Your task to perform on an android device: open the mobile data screen to see how much data has been used Image 0: 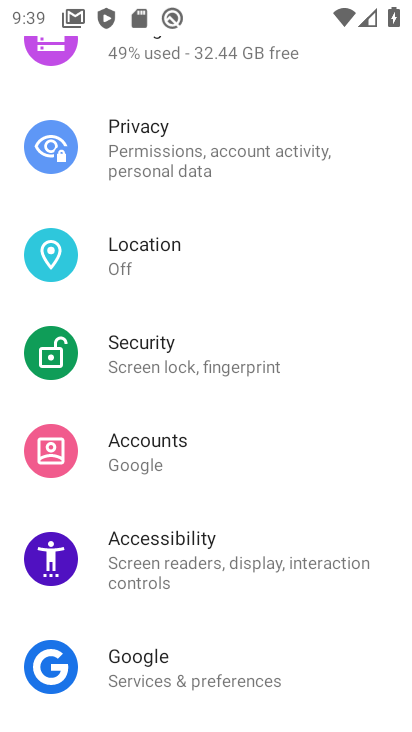
Step 0: drag from (304, 247) to (259, 718)
Your task to perform on an android device: open the mobile data screen to see how much data has been used Image 1: 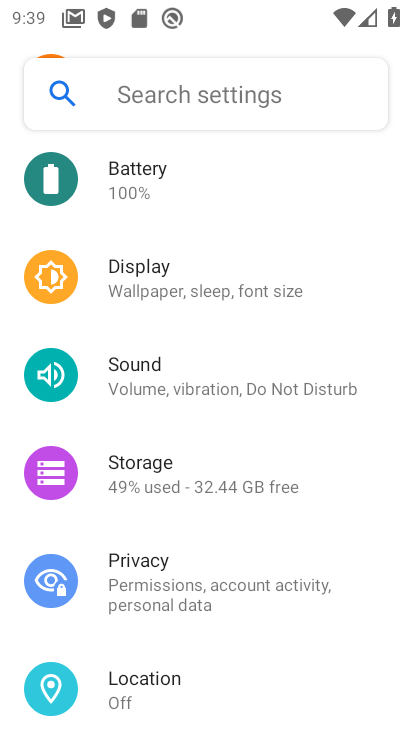
Step 1: drag from (307, 340) to (296, 683)
Your task to perform on an android device: open the mobile data screen to see how much data has been used Image 2: 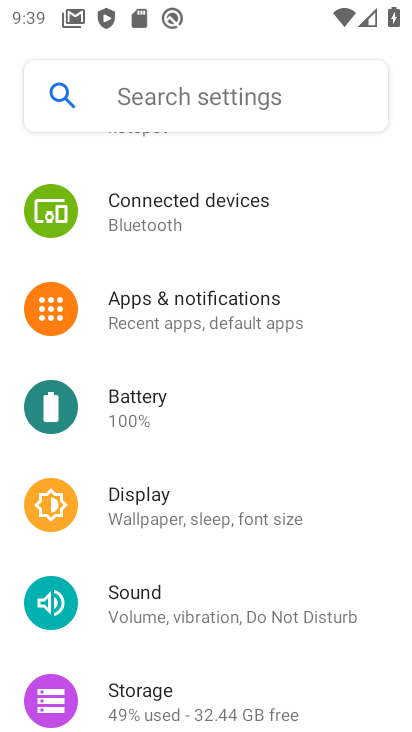
Step 2: drag from (299, 253) to (282, 635)
Your task to perform on an android device: open the mobile data screen to see how much data has been used Image 3: 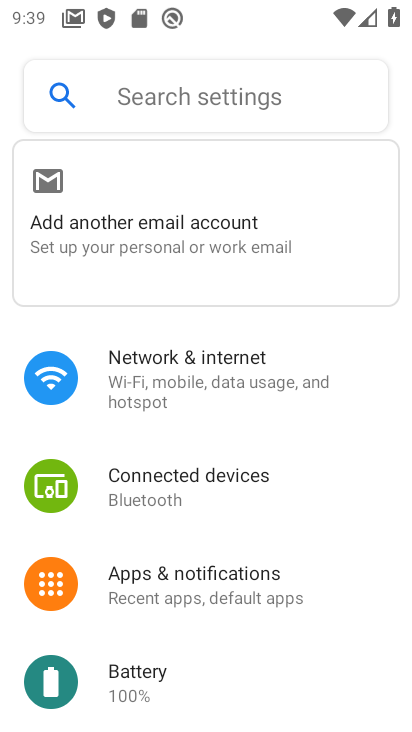
Step 3: click (222, 380)
Your task to perform on an android device: open the mobile data screen to see how much data has been used Image 4: 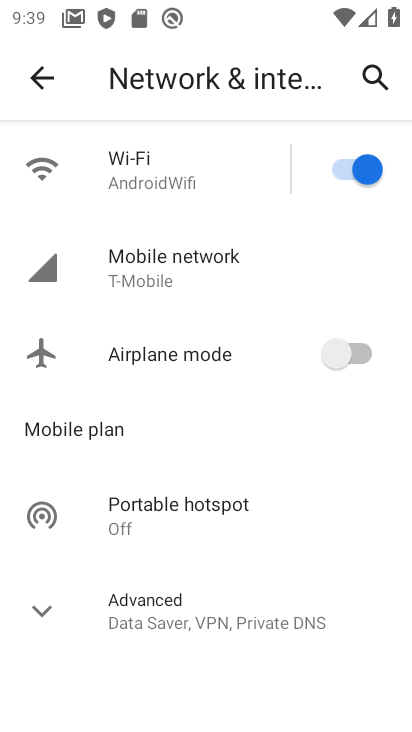
Step 4: click (152, 263)
Your task to perform on an android device: open the mobile data screen to see how much data has been used Image 5: 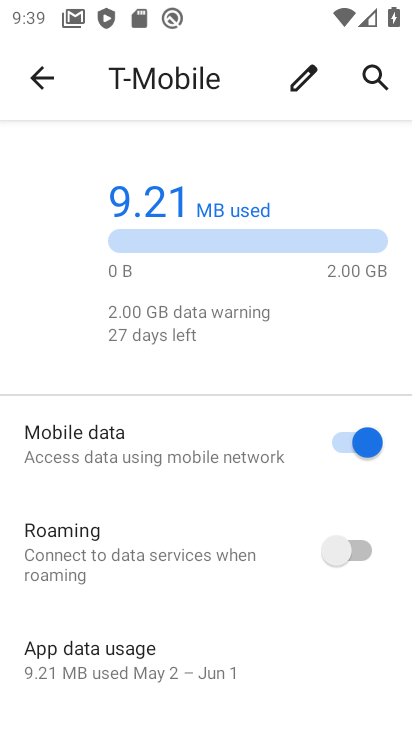
Step 5: drag from (232, 642) to (251, 302)
Your task to perform on an android device: open the mobile data screen to see how much data has been used Image 6: 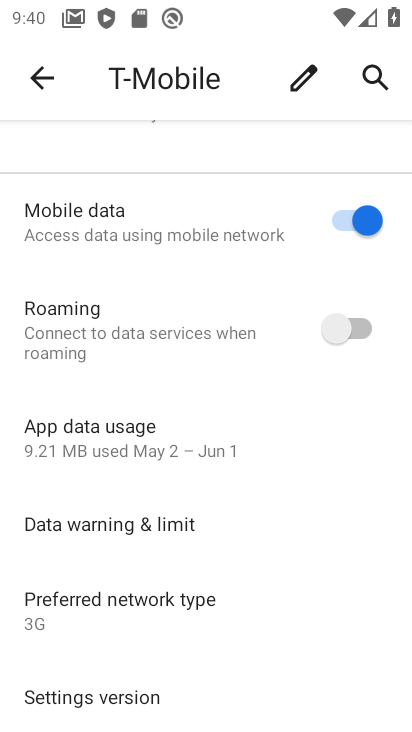
Step 6: drag from (143, 621) to (251, 186)
Your task to perform on an android device: open the mobile data screen to see how much data has been used Image 7: 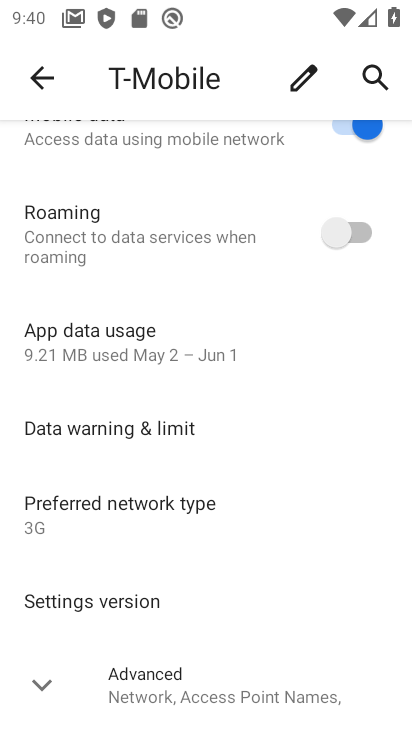
Step 7: drag from (234, 253) to (258, 569)
Your task to perform on an android device: open the mobile data screen to see how much data has been used Image 8: 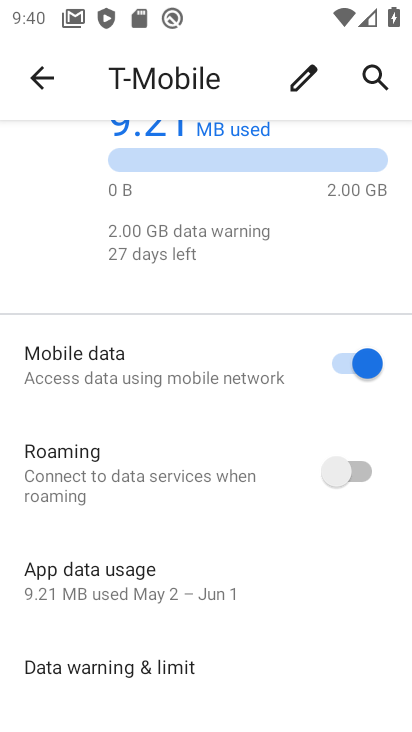
Step 8: drag from (184, 252) to (233, 536)
Your task to perform on an android device: open the mobile data screen to see how much data has been used Image 9: 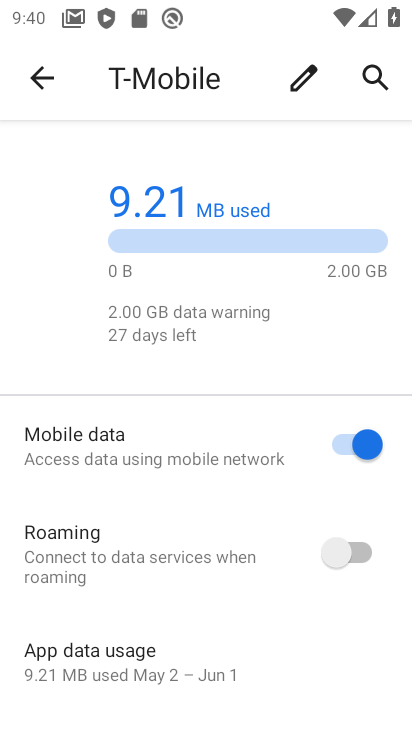
Step 9: click (115, 461)
Your task to perform on an android device: open the mobile data screen to see how much data has been used Image 10: 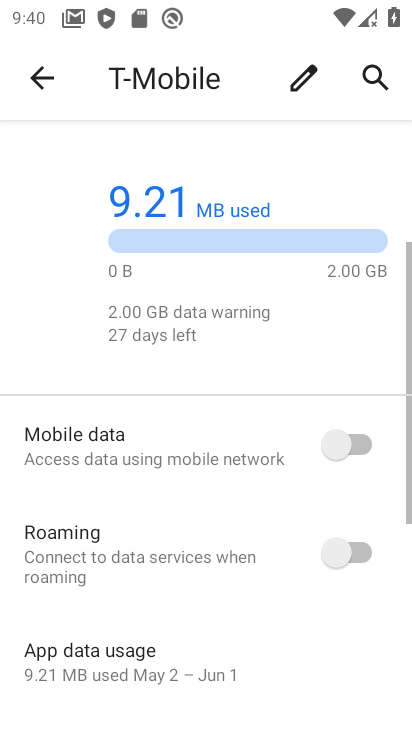
Step 10: click (115, 462)
Your task to perform on an android device: open the mobile data screen to see how much data has been used Image 11: 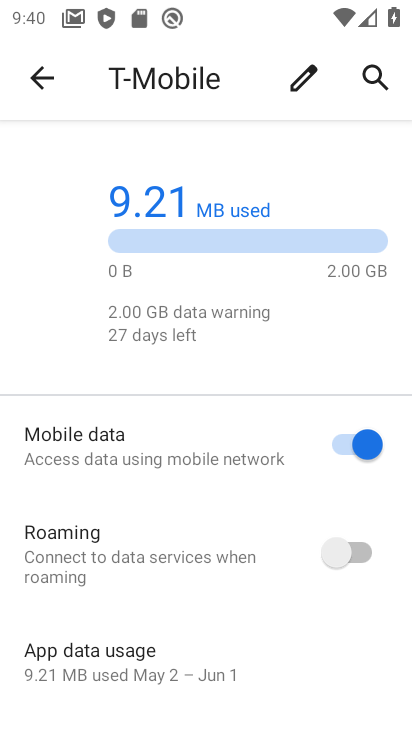
Step 11: drag from (127, 612) to (131, 289)
Your task to perform on an android device: open the mobile data screen to see how much data has been used Image 12: 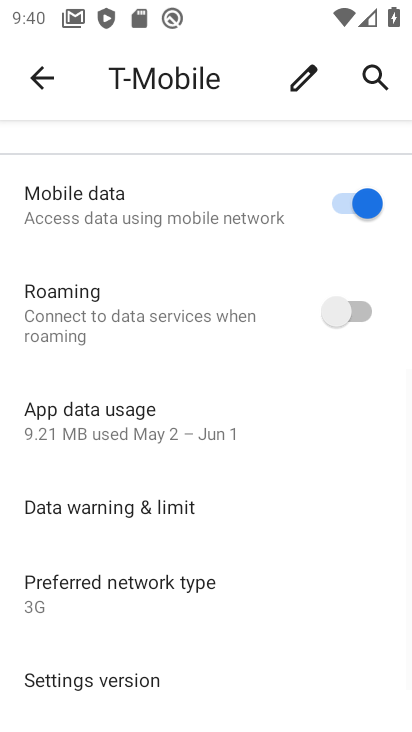
Step 12: drag from (158, 253) to (73, 697)
Your task to perform on an android device: open the mobile data screen to see how much data has been used Image 13: 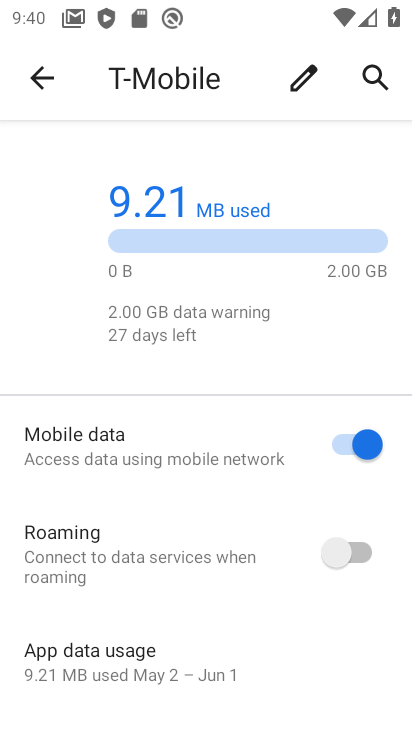
Step 13: drag from (153, 325) to (208, 626)
Your task to perform on an android device: open the mobile data screen to see how much data has been used Image 14: 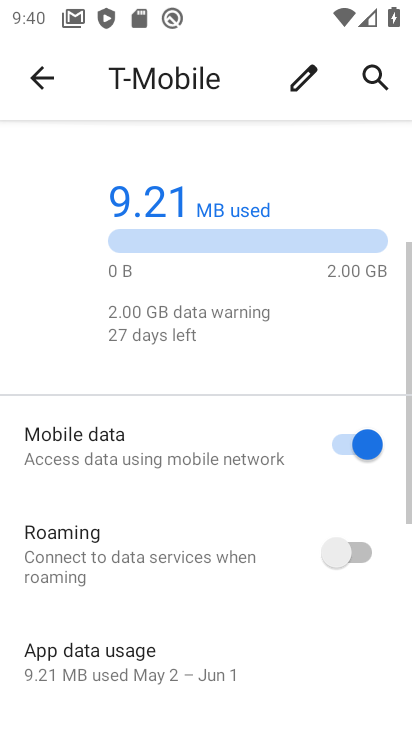
Step 14: click (186, 202)
Your task to perform on an android device: open the mobile data screen to see how much data has been used Image 15: 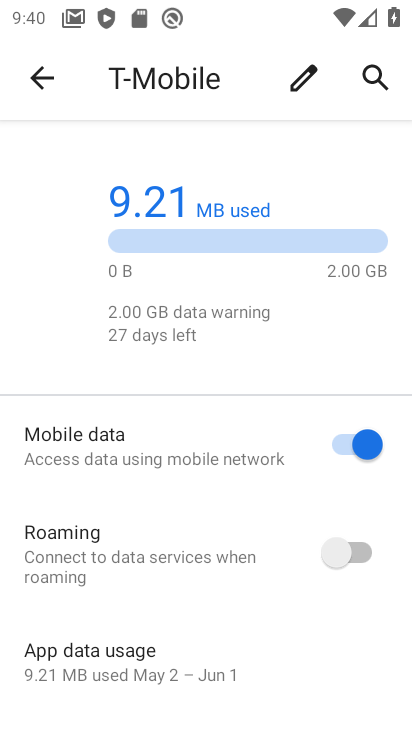
Step 15: click (202, 239)
Your task to perform on an android device: open the mobile data screen to see how much data has been used Image 16: 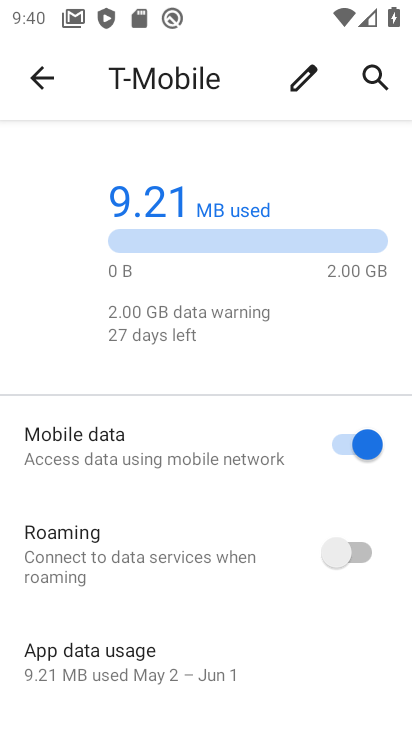
Step 16: click (202, 239)
Your task to perform on an android device: open the mobile data screen to see how much data has been used Image 17: 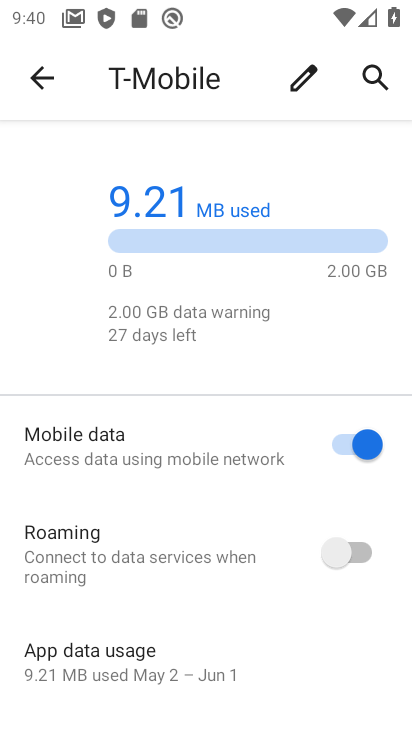
Step 17: click (202, 239)
Your task to perform on an android device: open the mobile data screen to see how much data has been used Image 18: 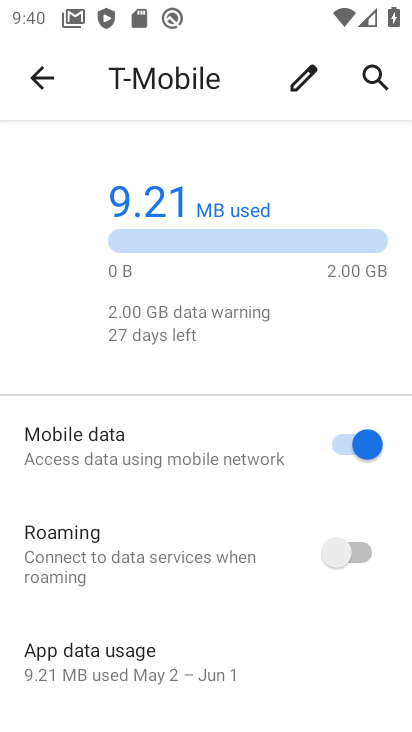
Step 18: task complete